Your task to perform on an android device: Play the last video I watched on Youtube Image 0: 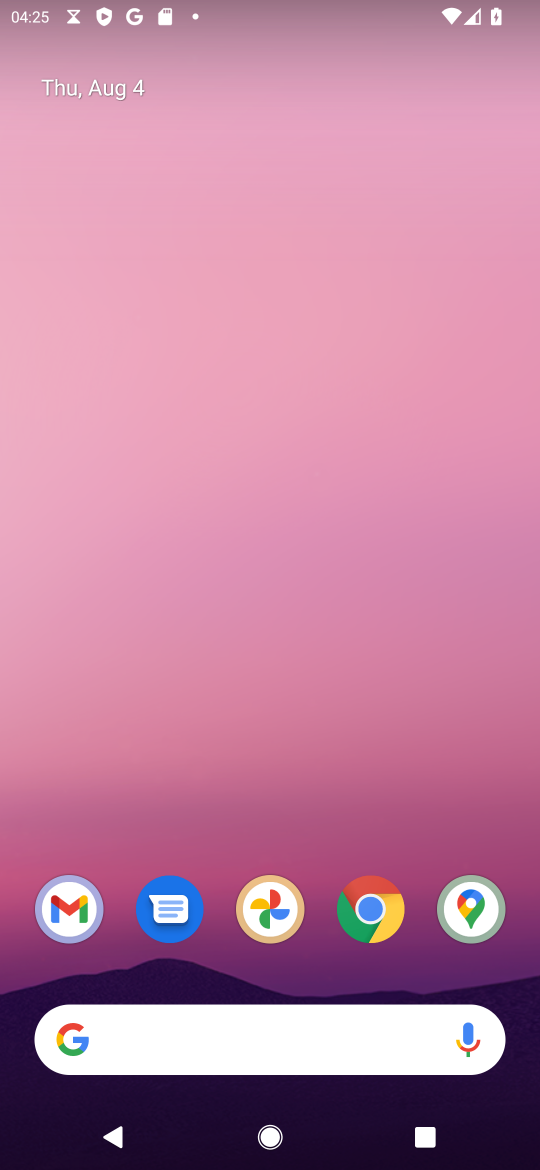
Step 0: drag from (277, 862) to (471, 122)
Your task to perform on an android device: Play the last video I watched on Youtube Image 1: 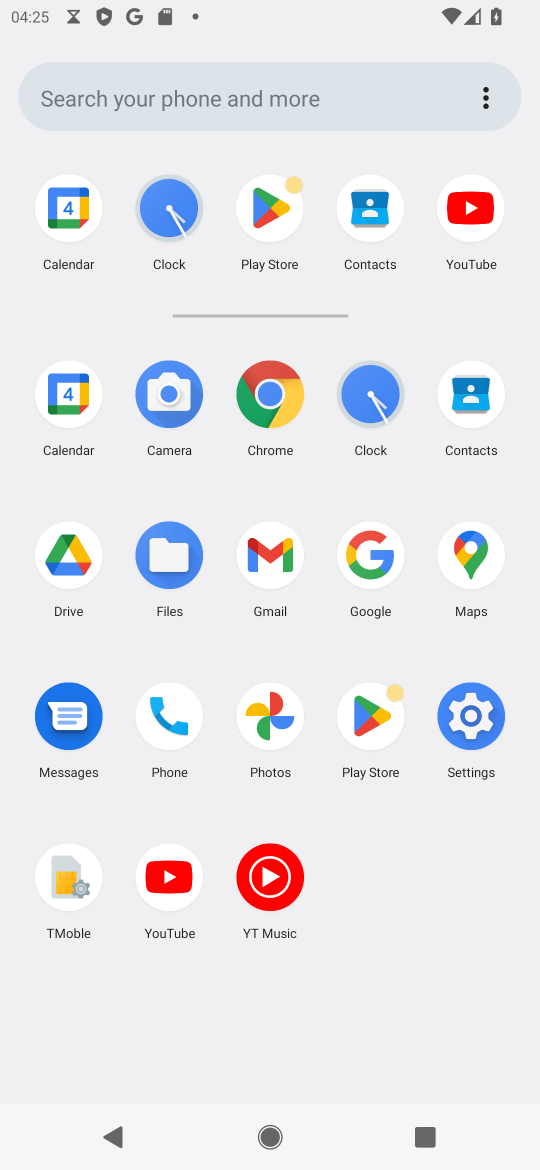
Step 1: click (168, 870)
Your task to perform on an android device: Play the last video I watched on Youtube Image 2: 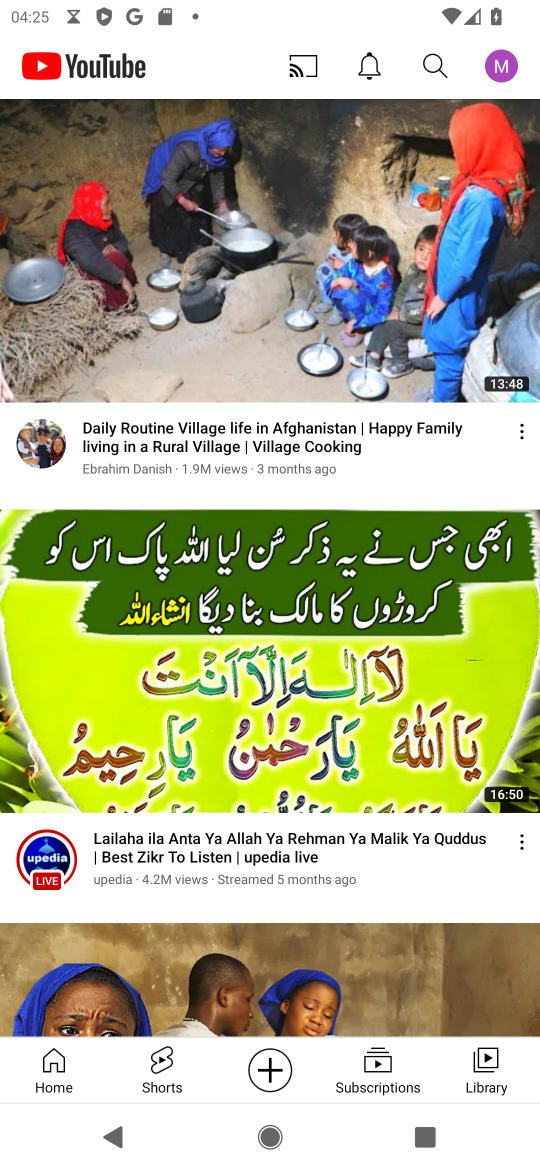
Step 2: click (488, 1077)
Your task to perform on an android device: Play the last video I watched on Youtube Image 3: 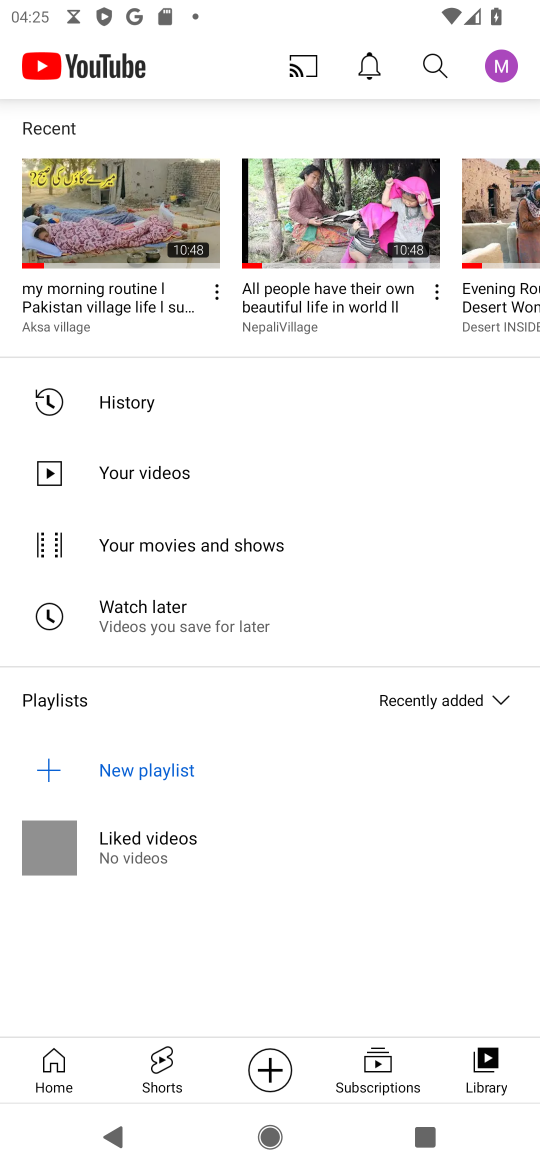
Step 3: click (128, 190)
Your task to perform on an android device: Play the last video I watched on Youtube Image 4: 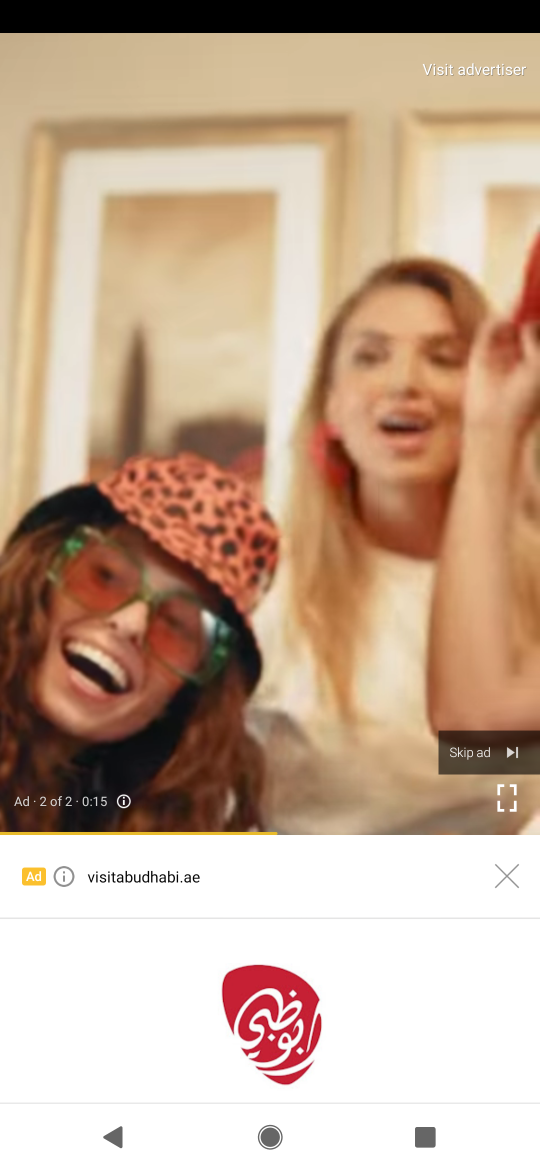
Step 4: click (473, 758)
Your task to perform on an android device: Play the last video I watched on Youtube Image 5: 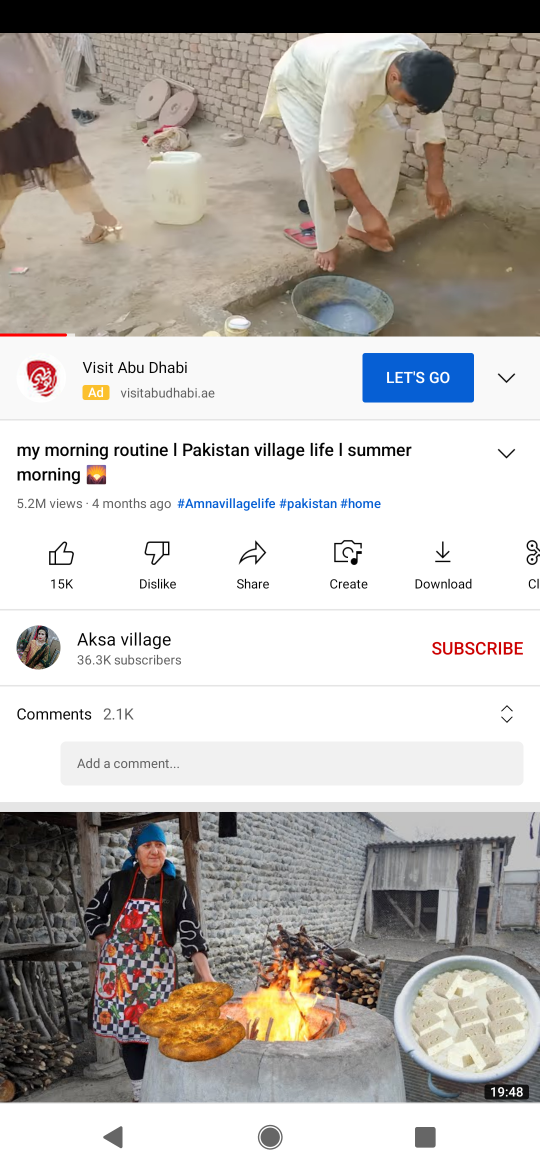
Step 5: click (327, 144)
Your task to perform on an android device: Play the last video I watched on Youtube Image 6: 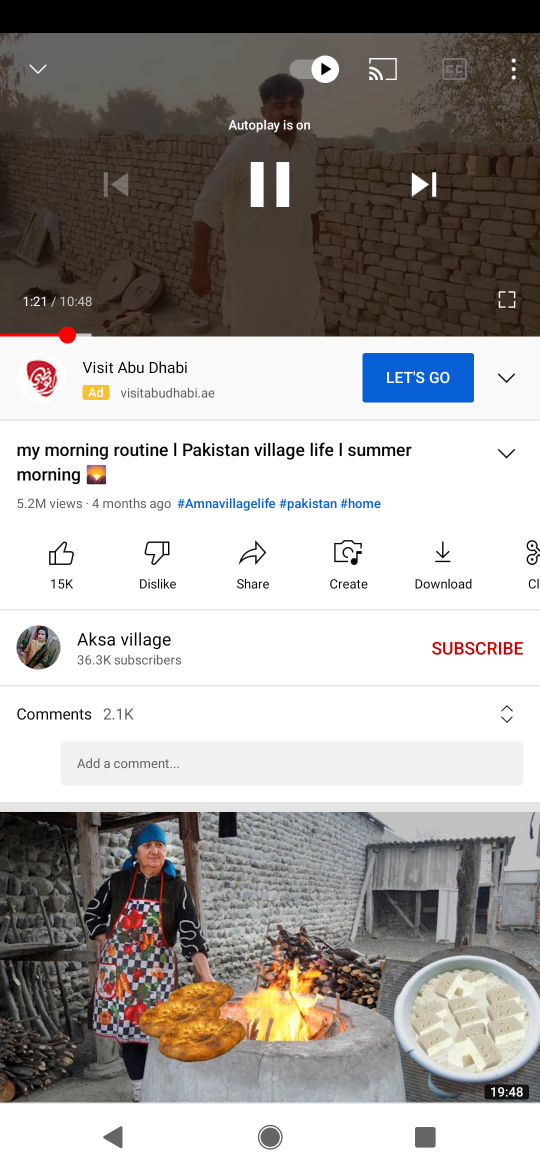
Step 6: click (257, 178)
Your task to perform on an android device: Play the last video I watched on Youtube Image 7: 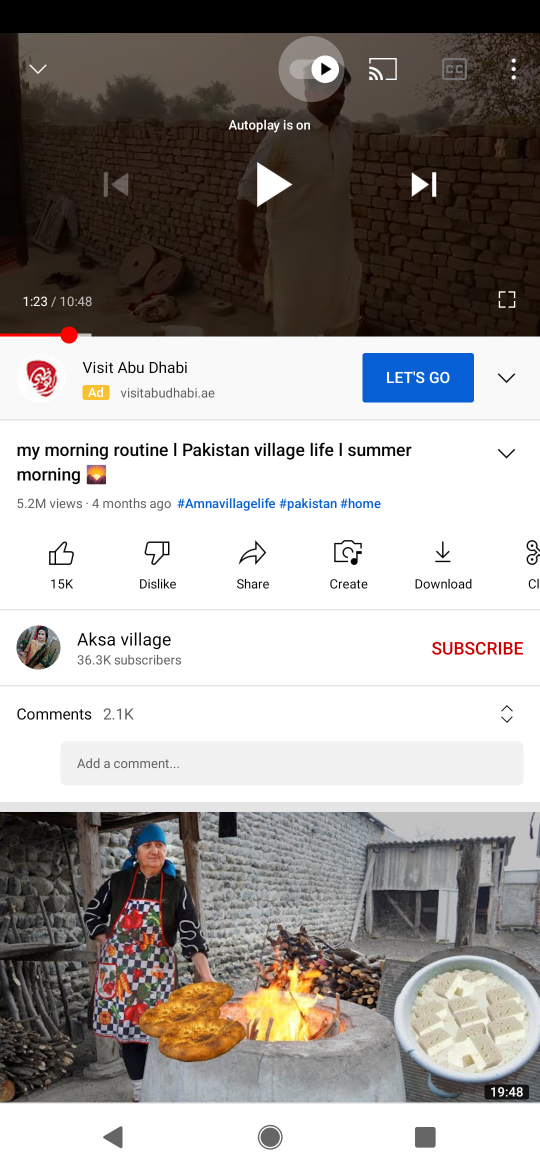
Step 7: task complete